Your task to perform on an android device: open app "Viber Messenger" (install if not already installed) Image 0: 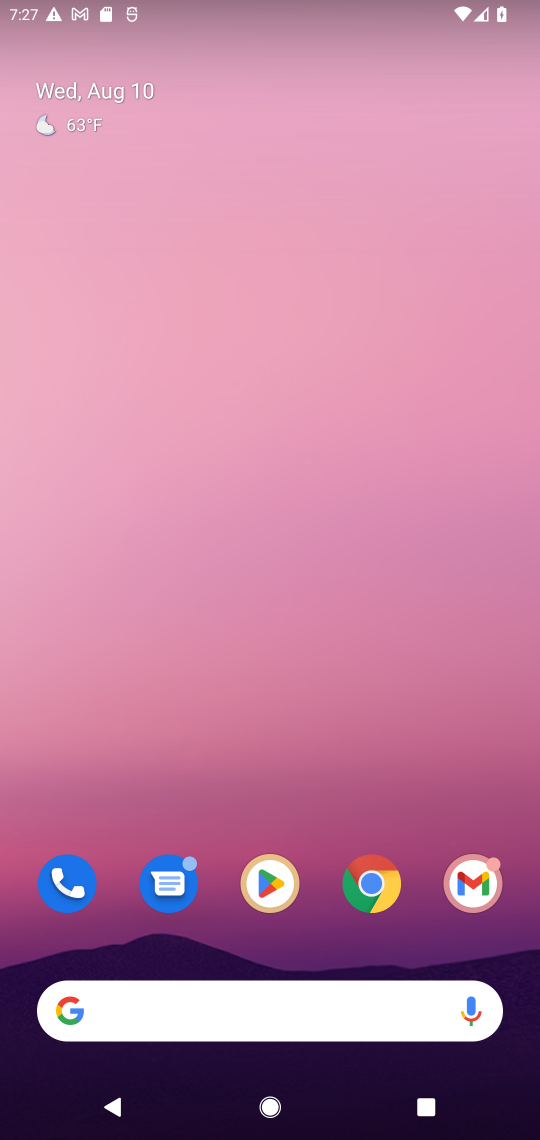
Step 0: click (287, 875)
Your task to perform on an android device: open app "Viber Messenger" (install if not already installed) Image 1: 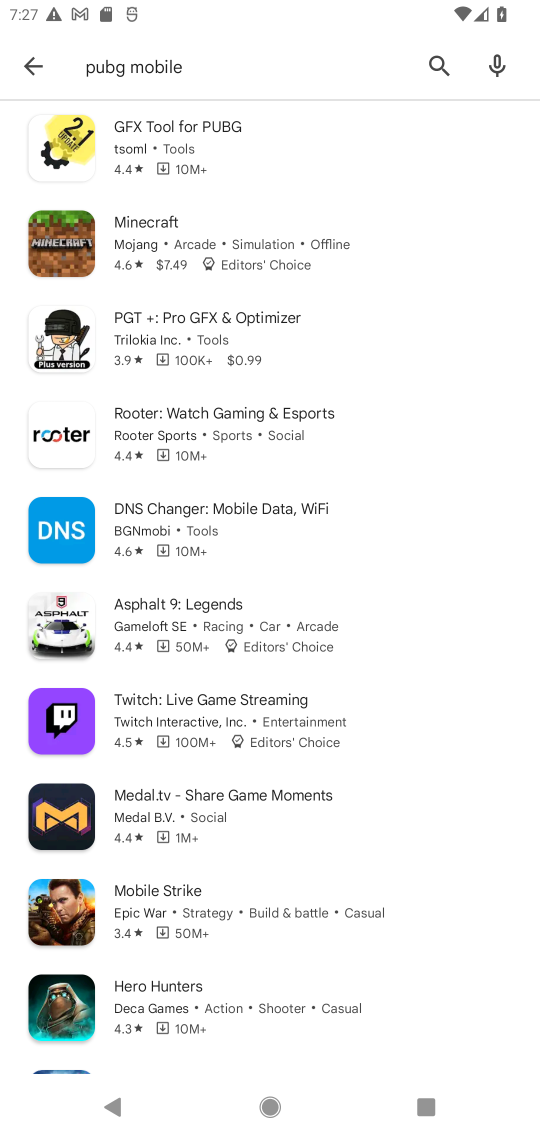
Step 1: click (446, 59)
Your task to perform on an android device: open app "Viber Messenger" (install if not already installed) Image 2: 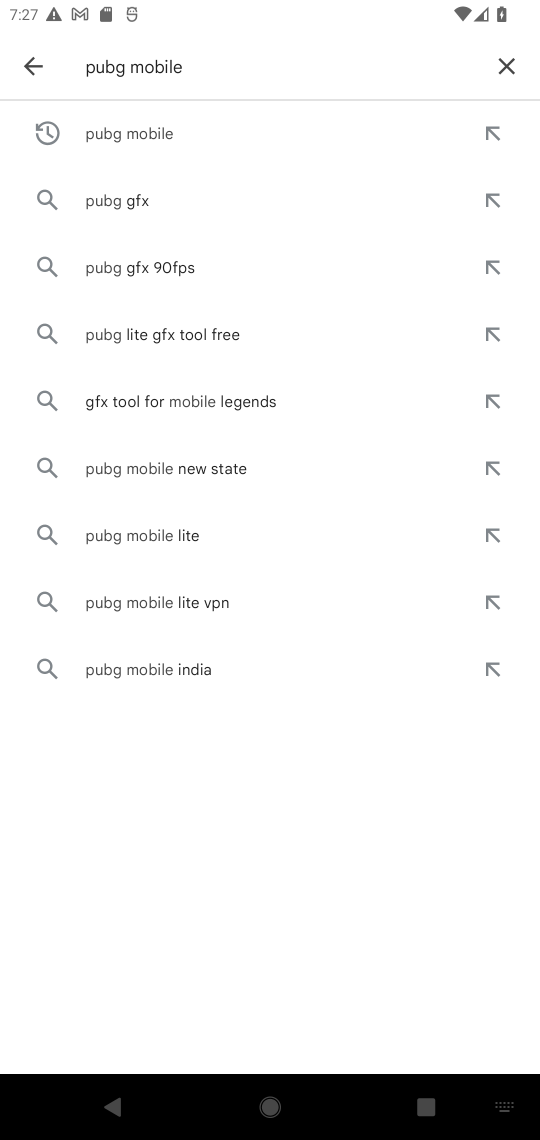
Step 2: click (499, 64)
Your task to perform on an android device: open app "Viber Messenger" (install if not already installed) Image 3: 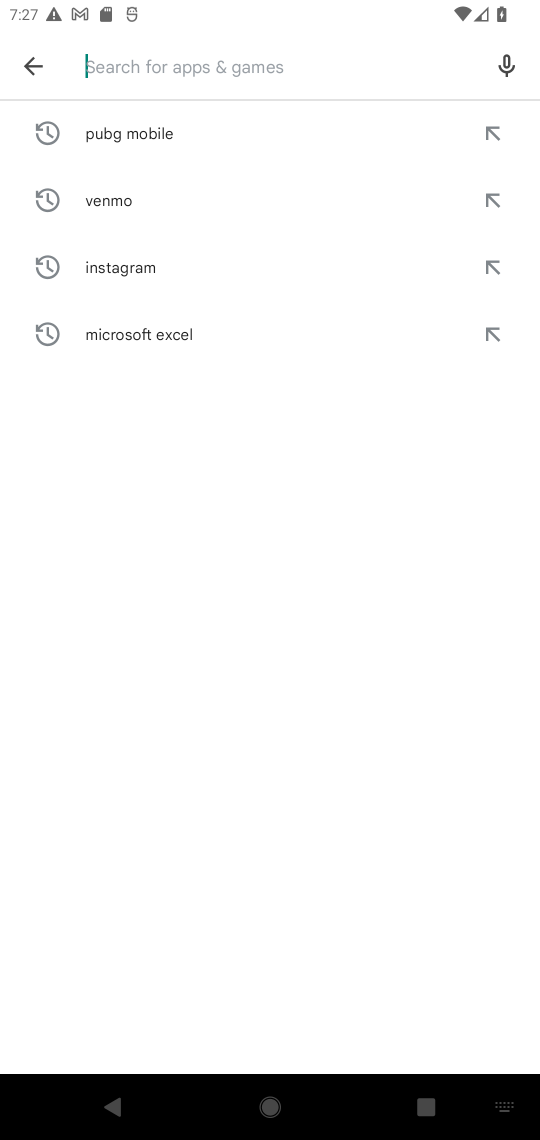
Step 3: type "Viber Messenger"
Your task to perform on an android device: open app "Viber Messenger" (install if not already installed) Image 4: 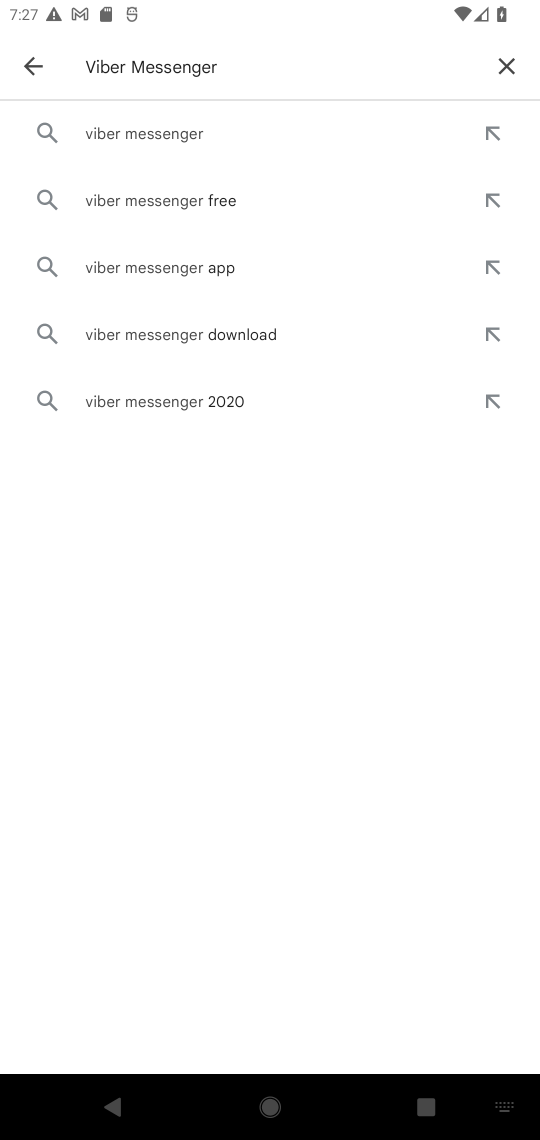
Step 4: click (219, 136)
Your task to perform on an android device: open app "Viber Messenger" (install if not already installed) Image 5: 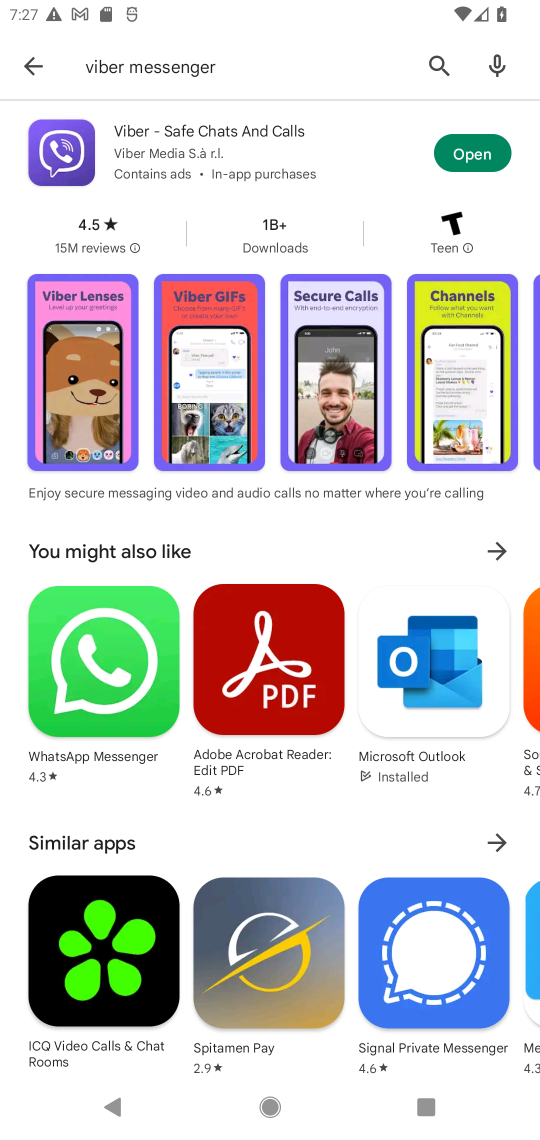
Step 5: click (480, 159)
Your task to perform on an android device: open app "Viber Messenger" (install if not already installed) Image 6: 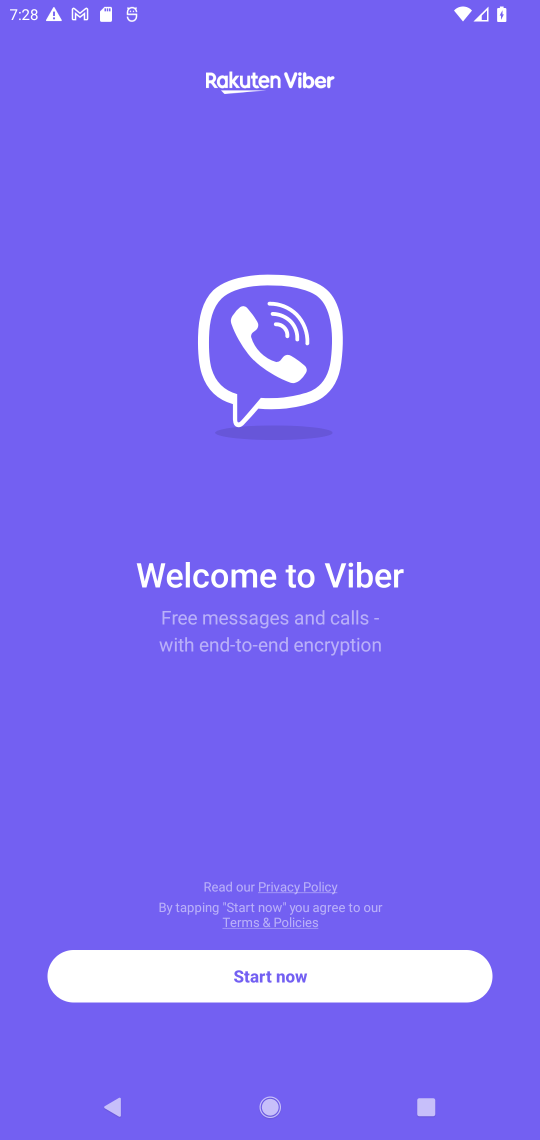
Step 6: task complete